Your task to perform on an android device: check battery use Image 0: 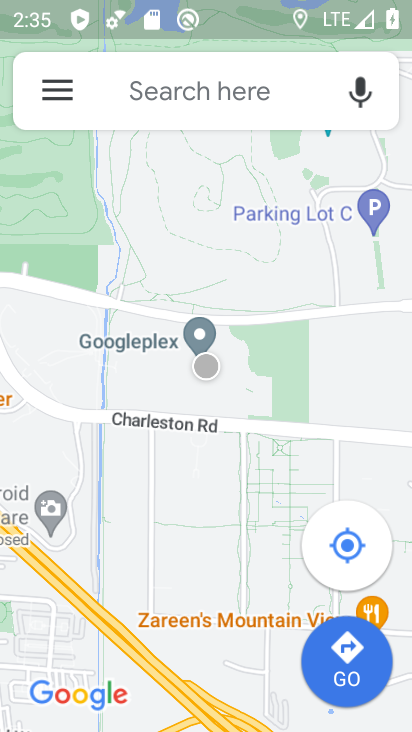
Step 0: press home button
Your task to perform on an android device: check battery use Image 1: 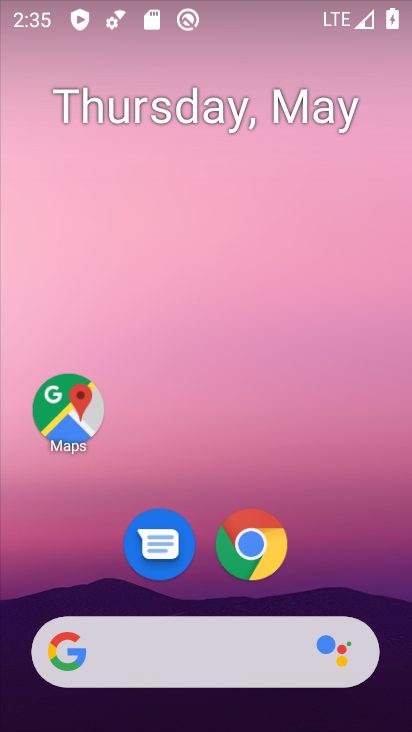
Step 1: drag from (231, 622) to (220, 74)
Your task to perform on an android device: check battery use Image 2: 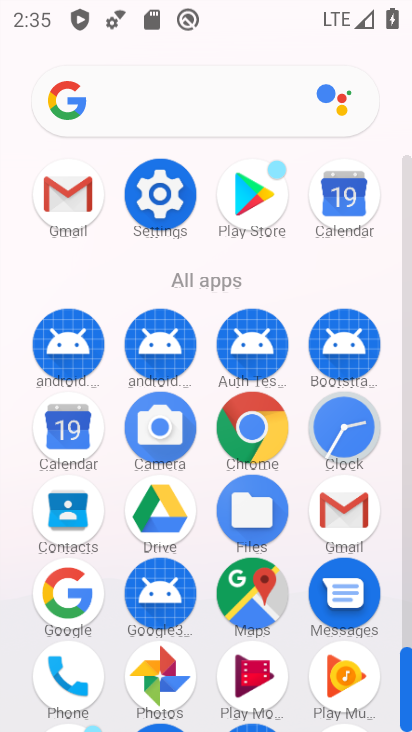
Step 2: click (173, 182)
Your task to perform on an android device: check battery use Image 3: 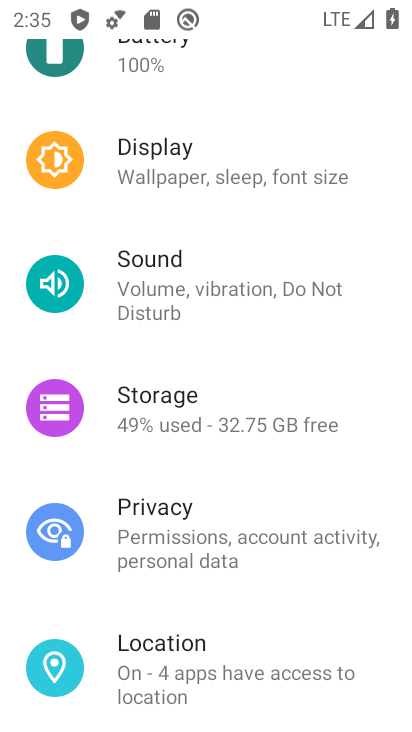
Step 3: click (258, 58)
Your task to perform on an android device: check battery use Image 4: 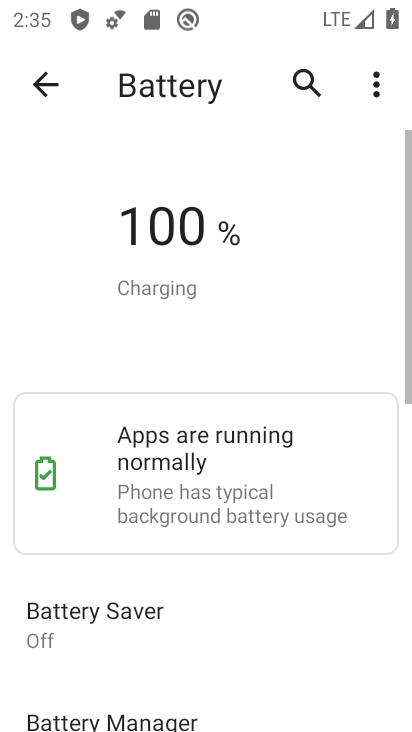
Step 4: click (374, 90)
Your task to perform on an android device: check battery use Image 5: 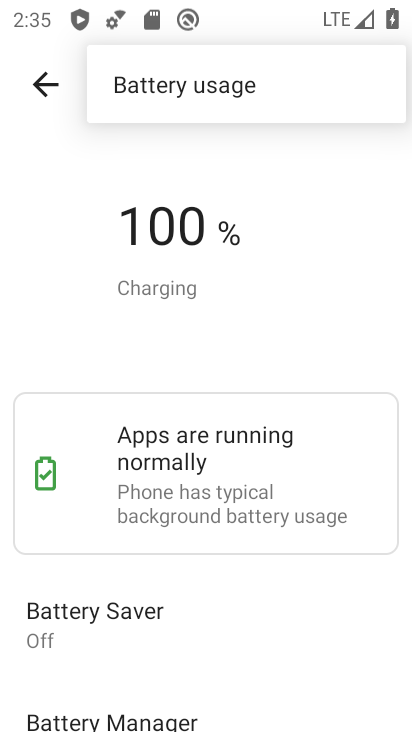
Step 5: click (314, 101)
Your task to perform on an android device: check battery use Image 6: 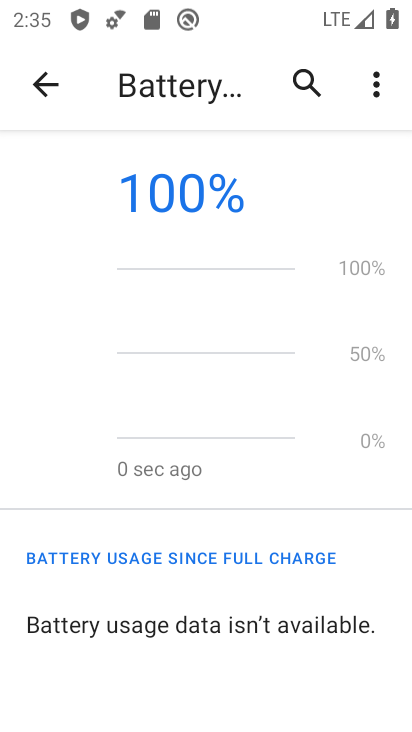
Step 6: task complete